Your task to perform on an android device: Do I have any events today? Image 0: 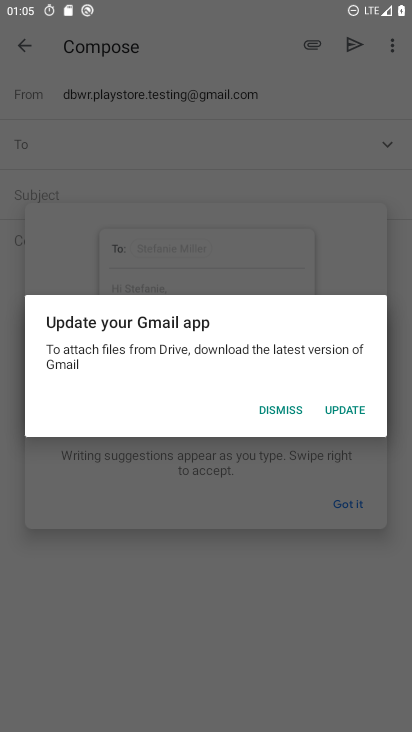
Step 0: press home button
Your task to perform on an android device: Do I have any events today? Image 1: 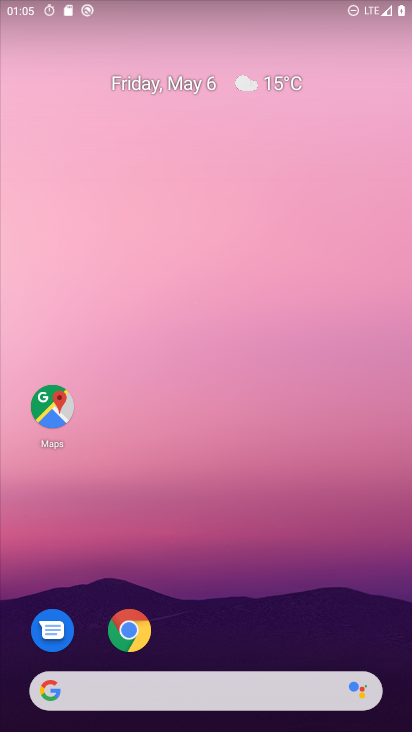
Step 1: drag from (274, 587) to (269, 189)
Your task to perform on an android device: Do I have any events today? Image 2: 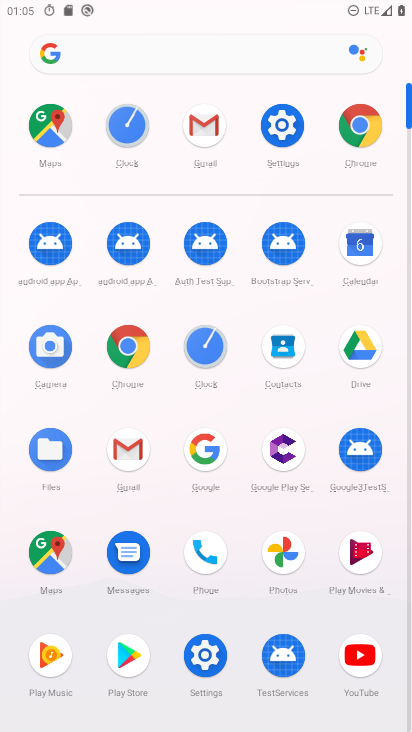
Step 2: click (356, 251)
Your task to perform on an android device: Do I have any events today? Image 3: 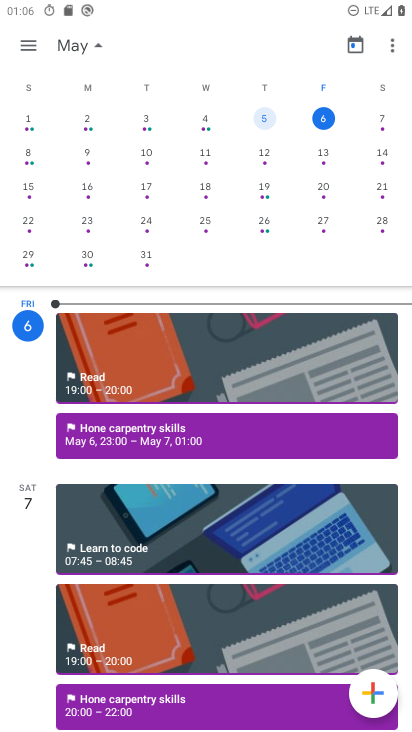
Step 3: task complete